Your task to perform on an android device: set the timer Image 0: 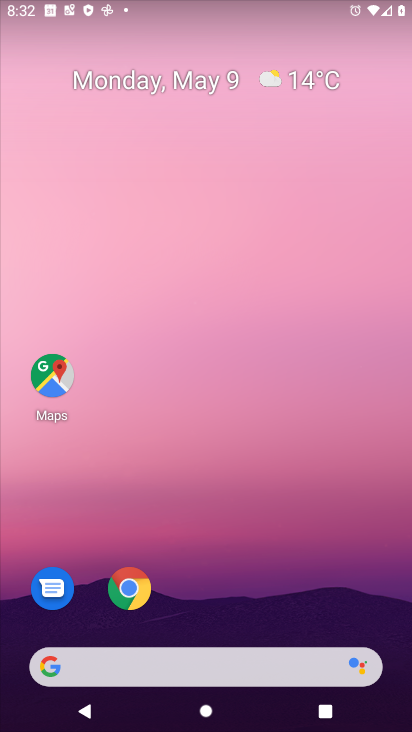
Step 0: drag from (333, 598) to (304, 45)
Your task to perform on an android device: set the timer Image 1: 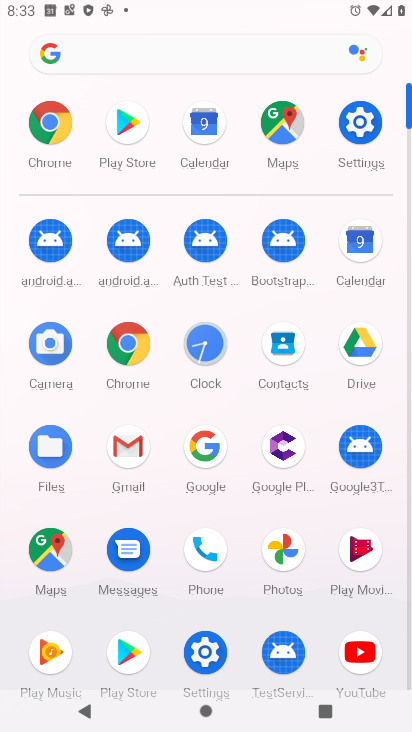
Step 1: click (208, 344)
Your task to perform on an android device: set the timer Image 2: 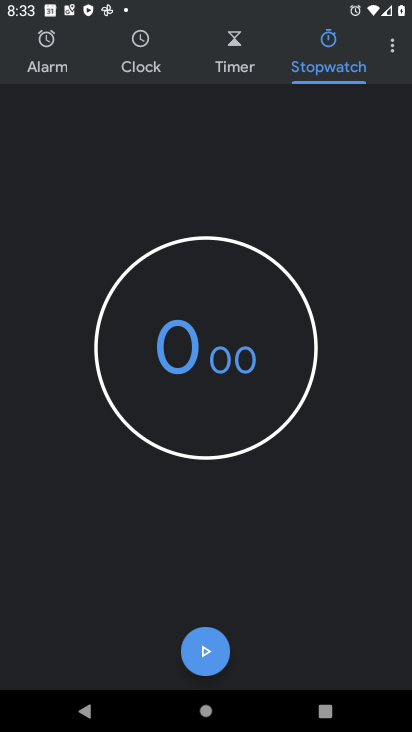
Step 2: click (391, 58)
Your task to perform on an android device: set the timer Image 3: 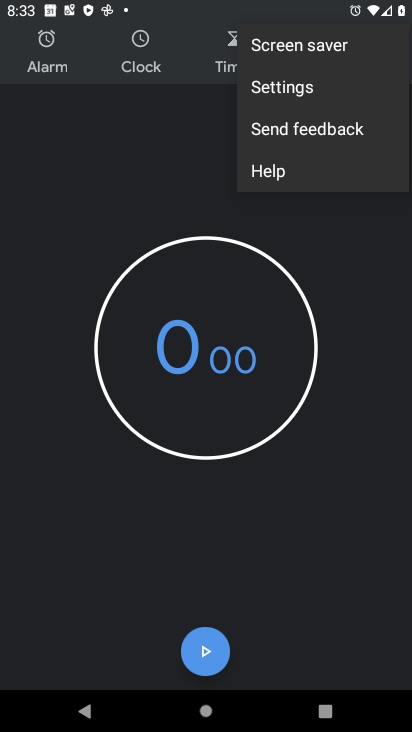
Step 3: click (280, 94)
Your task to perform on an android device: set the timer Image 4: 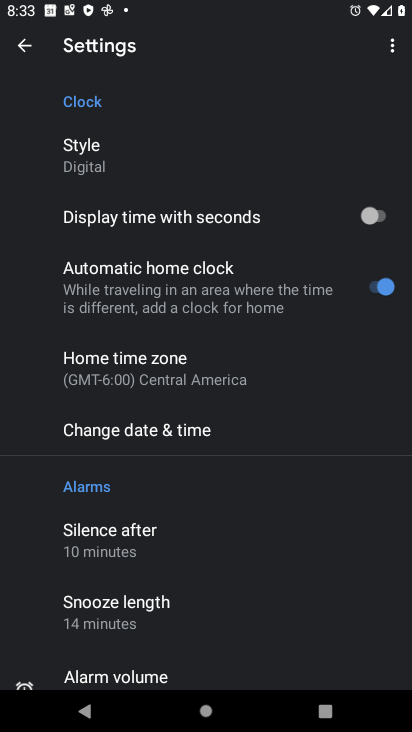
Step 4: click (220, 368)
Your task to perform on an android device: set the timer Image 5: 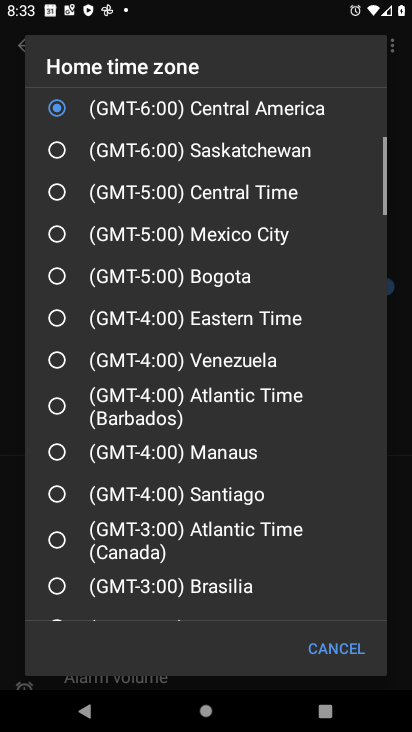
Step 5: click (167, 315)
Your task to perform on an android device: set the timer Image 6: 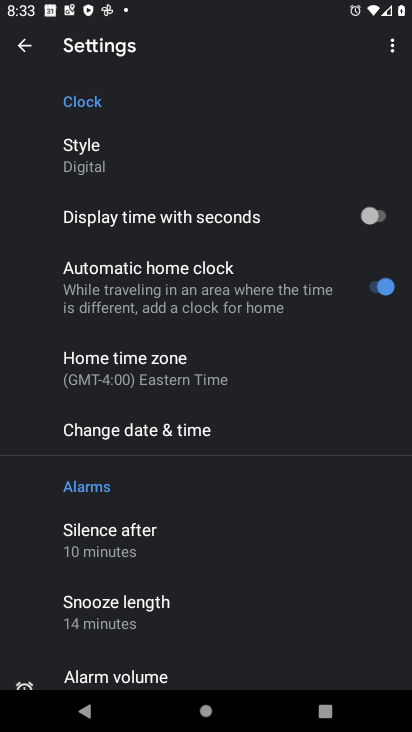
Step 6: task complete